Your task to perform on an android device: Open Google Maps and go to "Timeline" Image 0: 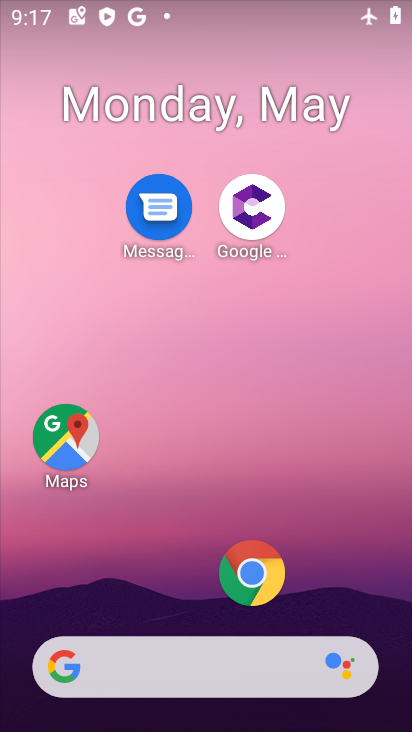
Step 0: click (69, 445)
Your task to perform on an android device: Open Google Maps and go to "Timeline" Image 1: 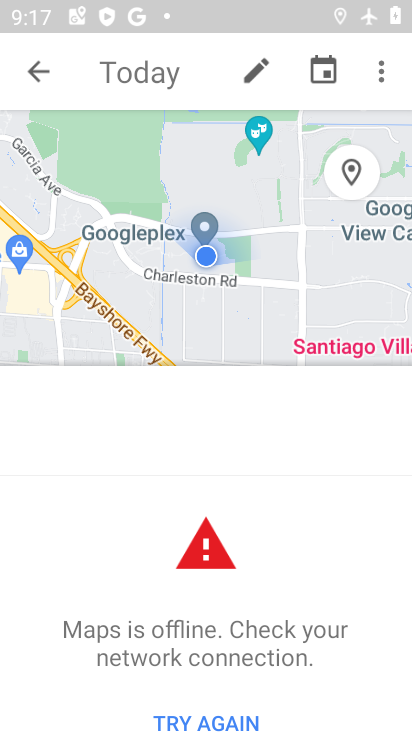
Step 1: task complete